Your task to perform on an android device: Is it going to rain today? Image 0: 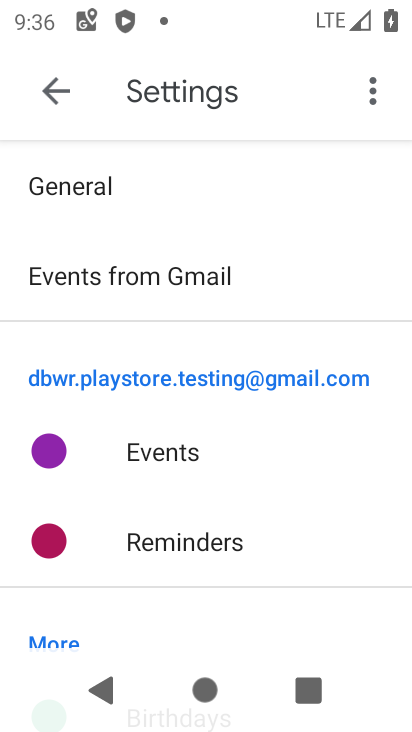
Step 0: press home button
Your task to perform on an android device: Is it going to rain today? Image 1: 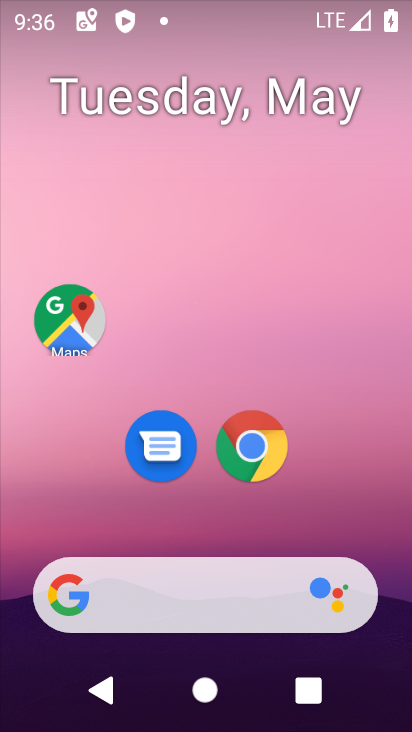
Step 1: drag from (209, 586) to (197, 127)
Your task to perform on an android device: Is it going to rain today? Image 2: 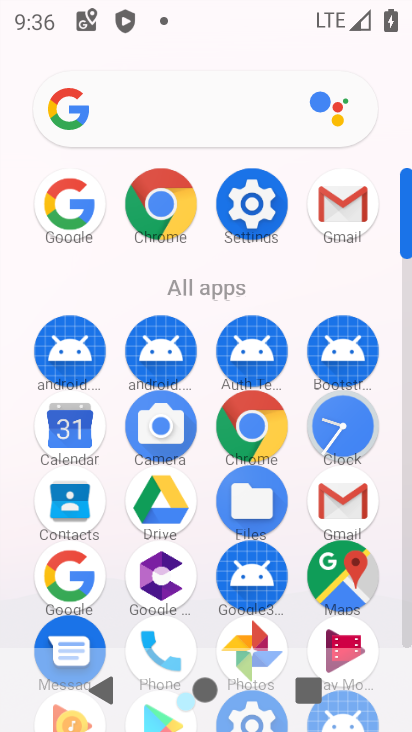
Step 2: click (74, 572)
Your task to perform on an android device: Is it going to rain today? Image 3: 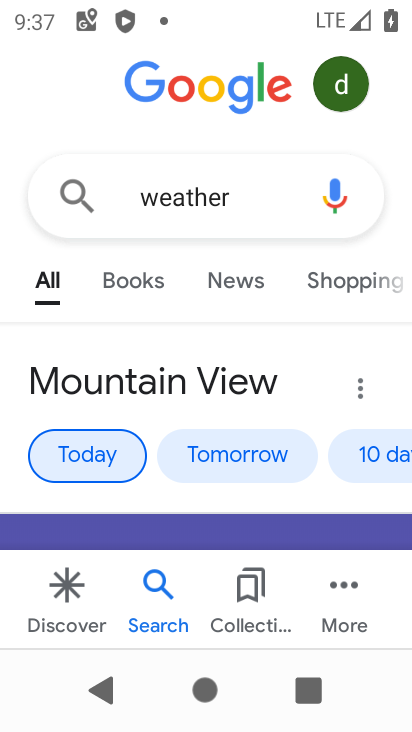
Step 3: task complete